Your task to perform on an android device: open a bookmark in the chrome app Image 0: 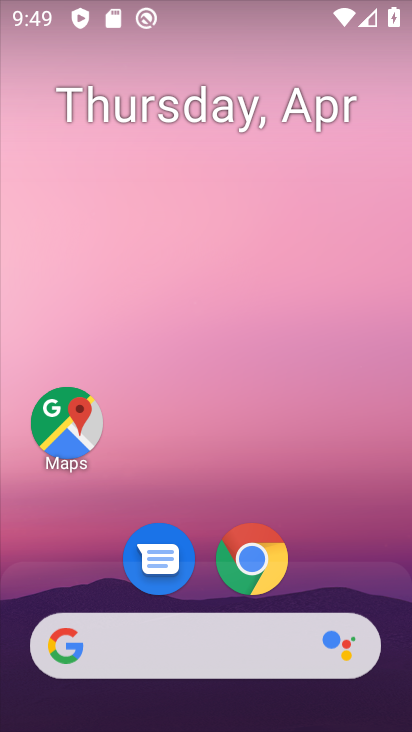
Step 0: drag from (186, 643) to (294, 178)
Your task to perform on an android device: open a bookmark in the chrome app Image 1: 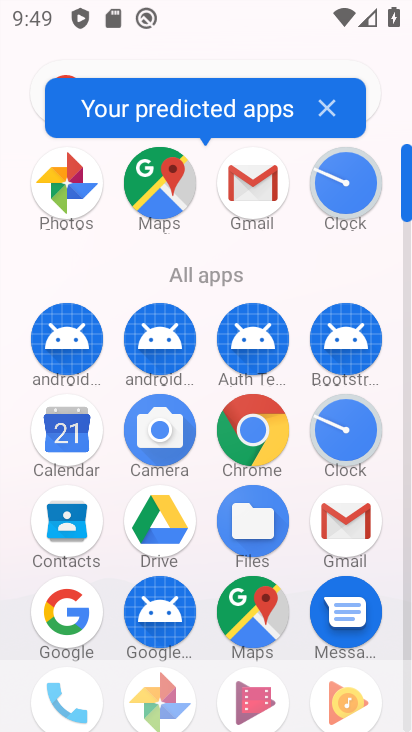
Step 1: click (252, 437)
Your task to perform on an android device: open a bookmark in the chrome app Image 2: 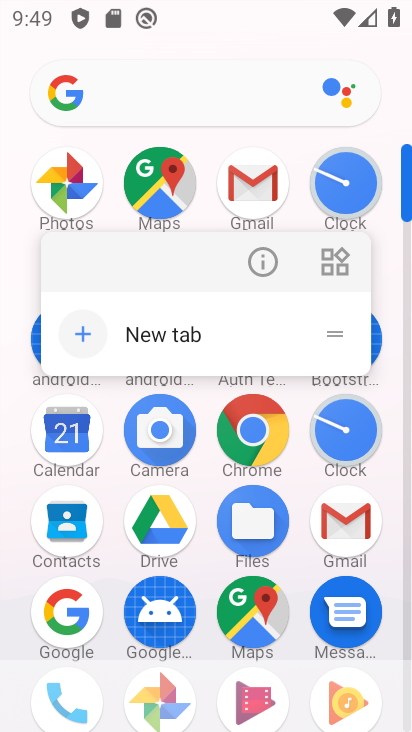
Step 2: click (261, 436)
Your task to perform on an android device: open a bookmark in the chrome app Image 3: 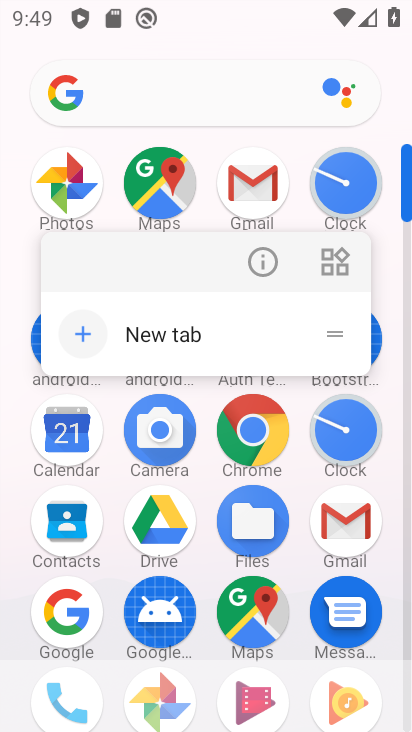
Step 3: click (255, 442)
Your task to perform on an android device: open a bookmark in the chrome app Image 4: 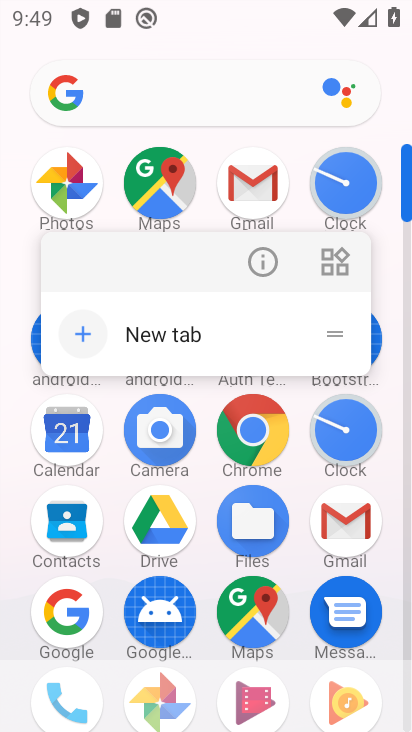
Step 4: click (249, 438)
Your task to perform on an android device: open a bookmark in the chrome app Image 5: 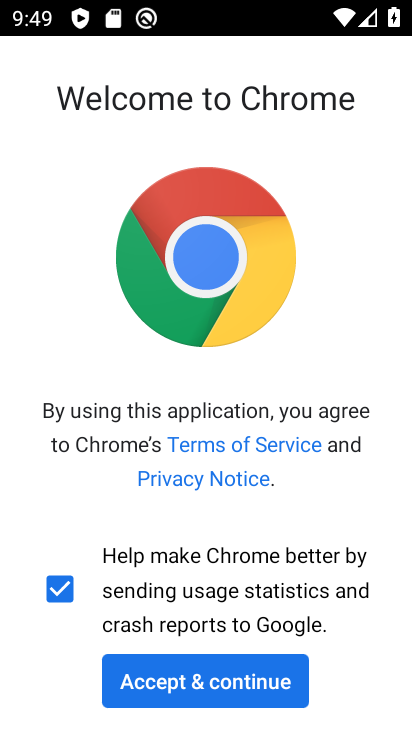
Step 5: click (189, 664)
Your task to perform on an android device: open a bookmark in the chrome app Image 6: 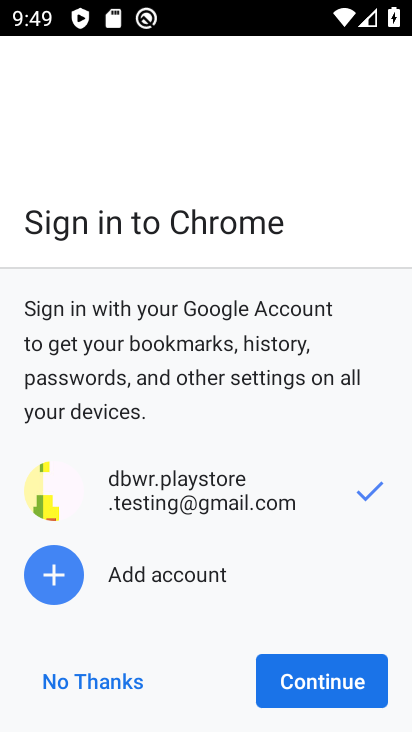
Step 6: click (308, 685)
Your task to perform on an android device: open a bookmark in the chrome app Image 7: 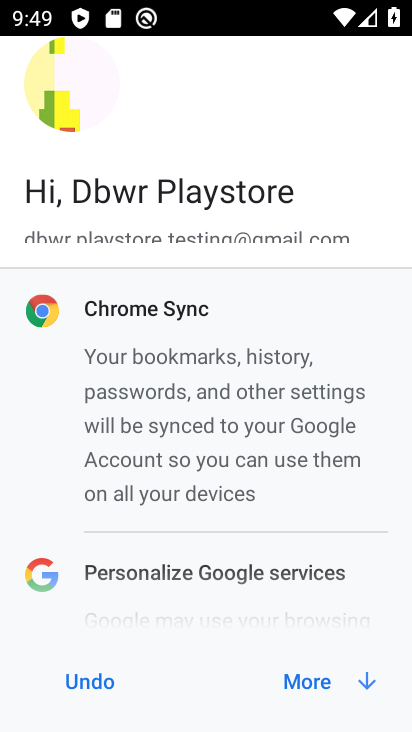
Step 7: click (308, 685)
Your task to perform on an android device: open a bookmark in the chrome app Image 8: 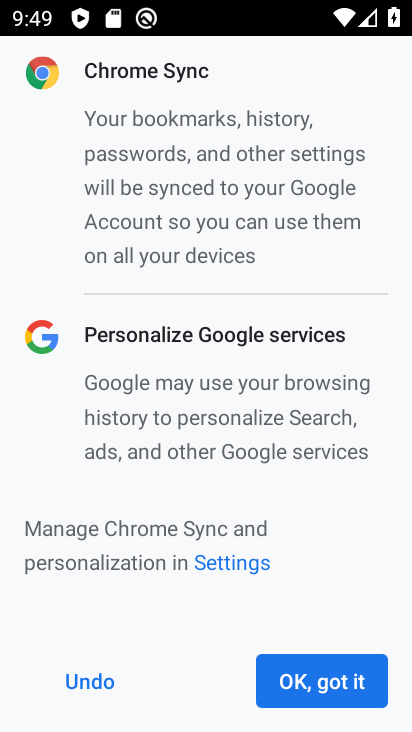
Step 8: click (308, 685)
Your task to perform on an android device: open a bookmark in the chrome app Image 9: 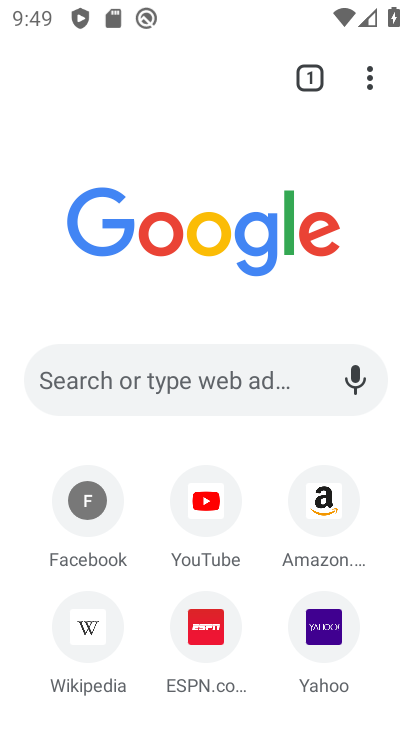
Step 9: click (363, 96)
Your task to perform on an android device: open a bookmark in the chrome app Image 10: 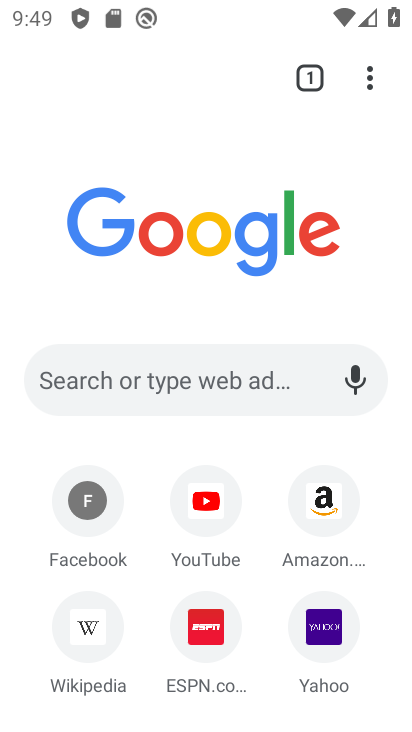
Step 10: click (360, 86)
Your task to perform on an android device: open a bookmark in the chrome app Image 11: 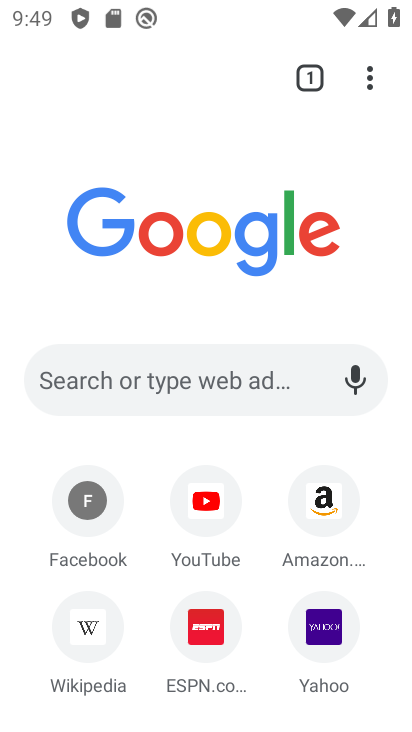
Step 11: click (365, 87)
Your task to perform on an android device: open a bookmark in the chrome app Image 12: 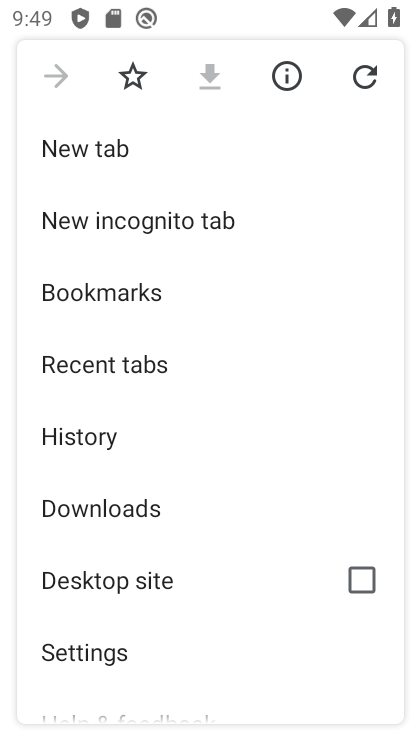
Step 12: click (101, 290)
Your task to perform on an android device: open a bookmark in the chrome app Image 13: 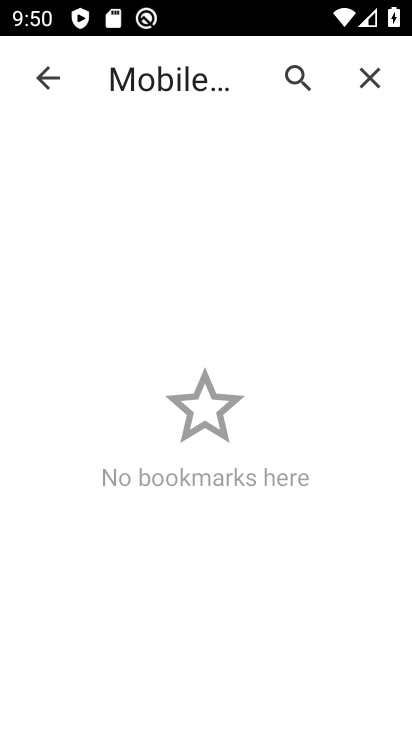
Step 13: task complete